Your task to perform on an android device: Show me the alarms in the clock app Image 0: 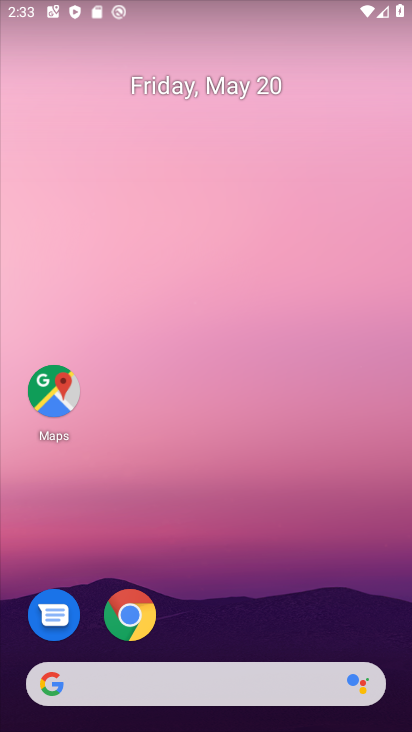
Step 0: drag from (219, 603) to (226, 200)
Your task to perform on an android device: Show me the alarms in the clock app Image 1: 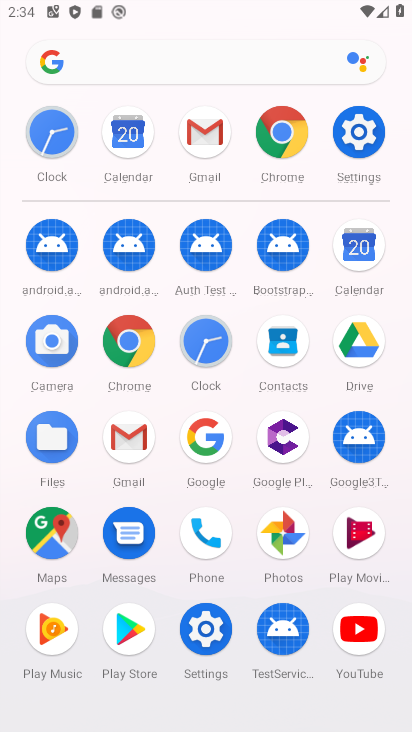
Step 1: click (197, 335)
Your task to perform on an android device: Show me the alarms in the clock app Image 2: 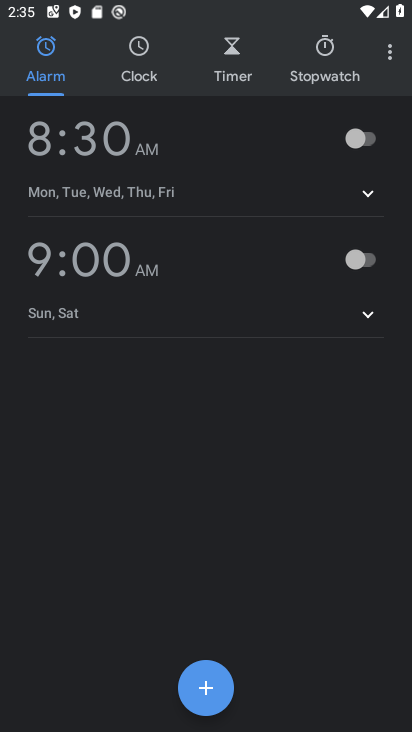
Step 2: task complete